Your task to perform on an android device: Open the map Image 0: 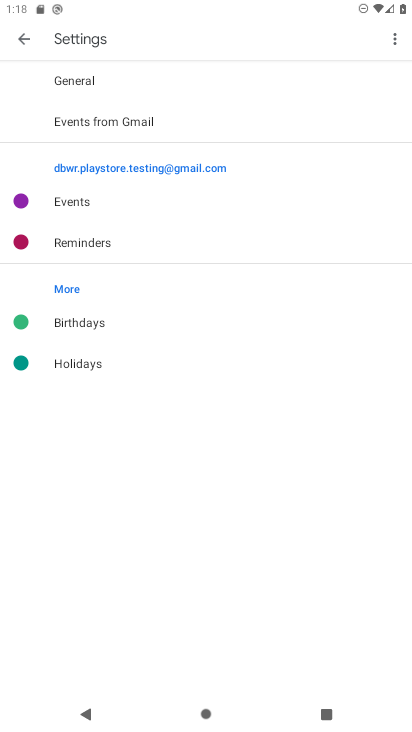
Step 0: press home button
Your task to perform on an android device: Open the map Image 1: 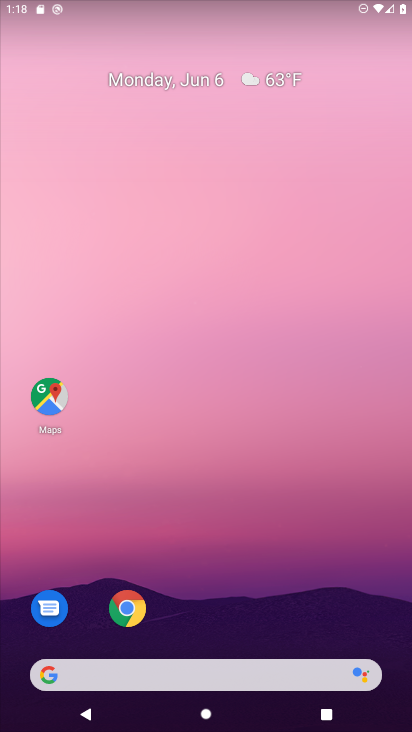
Step 1: click (53, 412)
Your task to perform on an android device: Open the map Image 2: 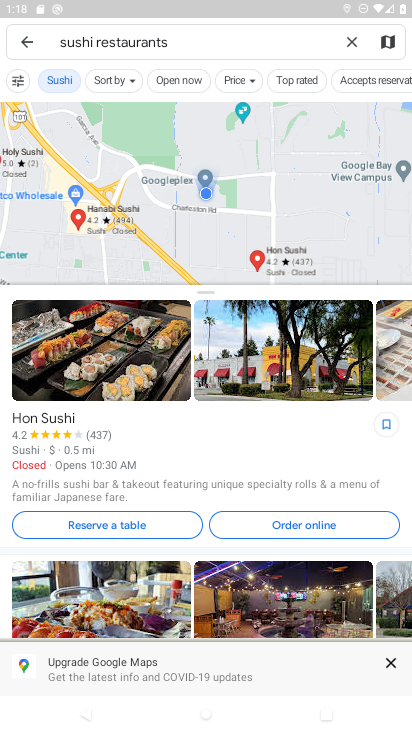
Step 2: click (27, 47)
Your task to perform on an android device: Open the map Image 3: 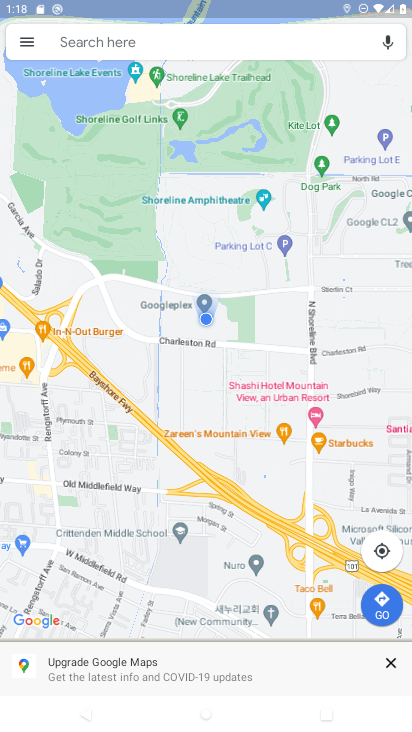
Step 3: task complete